Your task to perform on an android device: Turn on the flashlight Image 0: 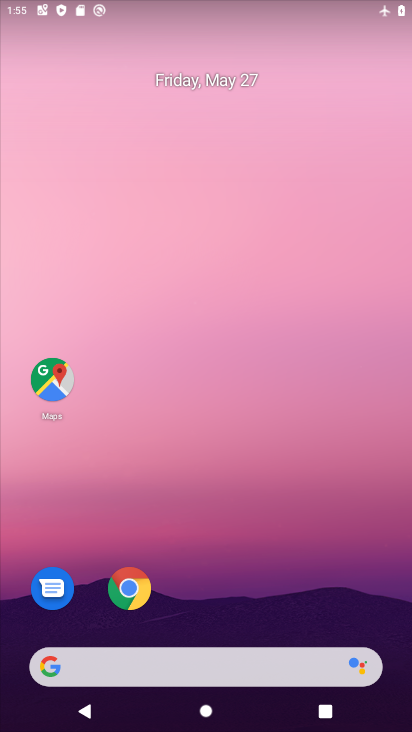
Step 0: drag from (256, 7) to (241, 359)
Your task to perform on an android device: Turn on the flashlight Image 1: 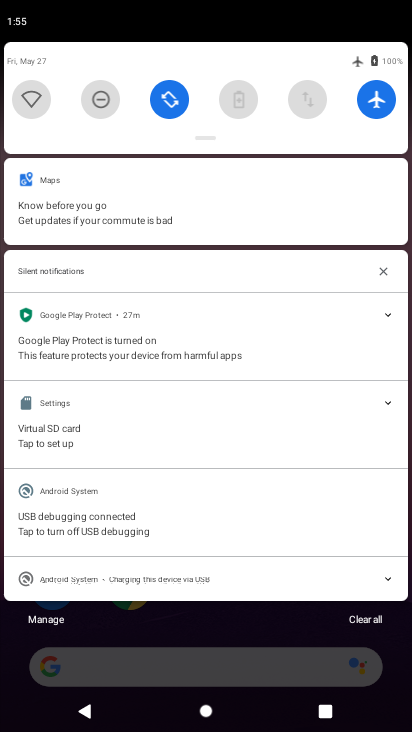
Step 1: drag from (201, 132) to (204, 442)
Your task to perform on an android device: Turn on the flashlight Image 2: 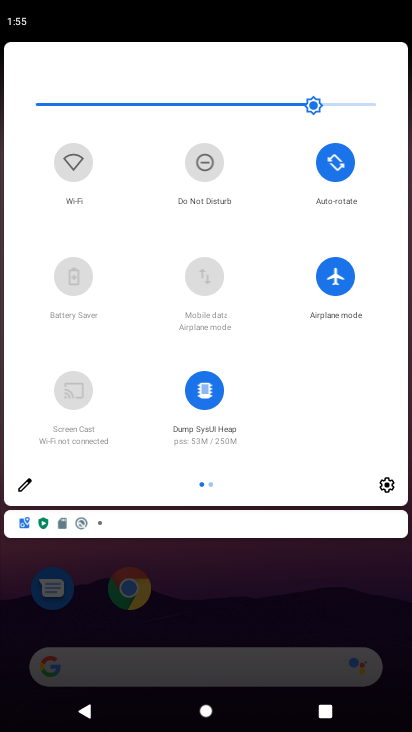
Step 2: click (20, 486)
Your task to perform on an android device: Turn on the flashlight Image 3: 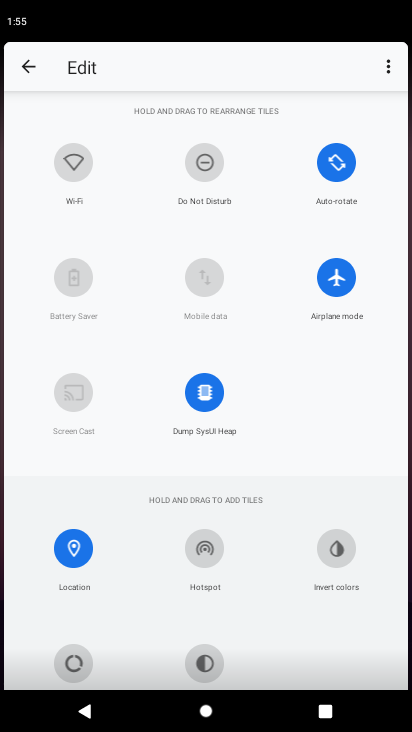
Step 3: task complete